Your task to perform on an android device: Show me recent news Image 0: 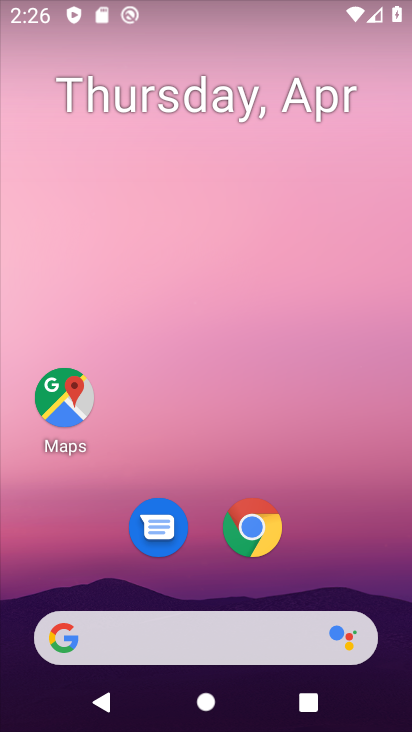
Step 0: drag from (260, 568) to (331, 1)
Your task to perform on an android device: Show me recent news Image 1: 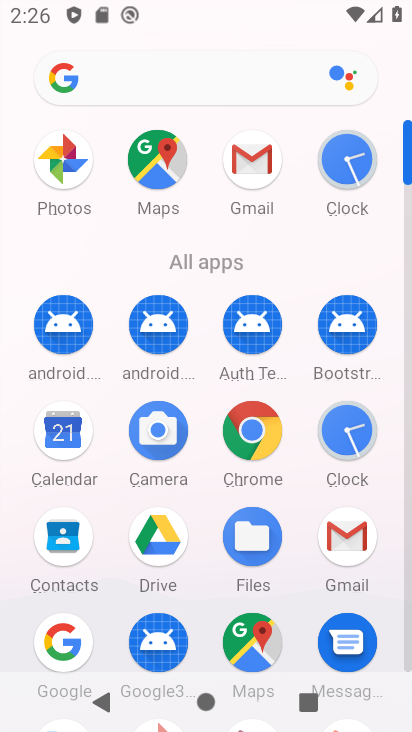
Step 1: click (185, 86)
Your task to perform on an android device: Show me recent news Image 2: 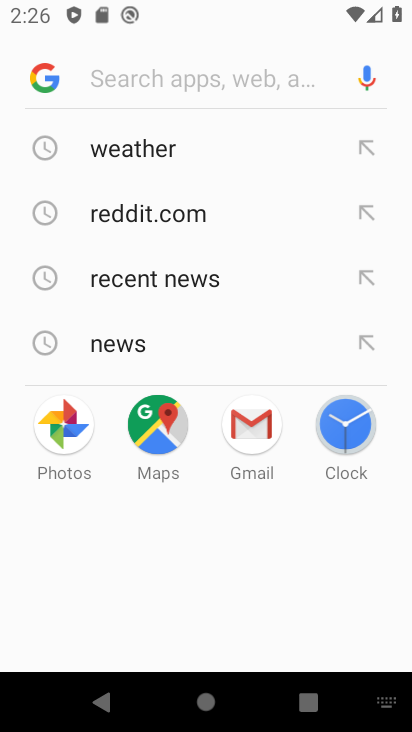
Step 2: click (150, 275)
Your task to perform on an android device: Show me recent news Image 3: 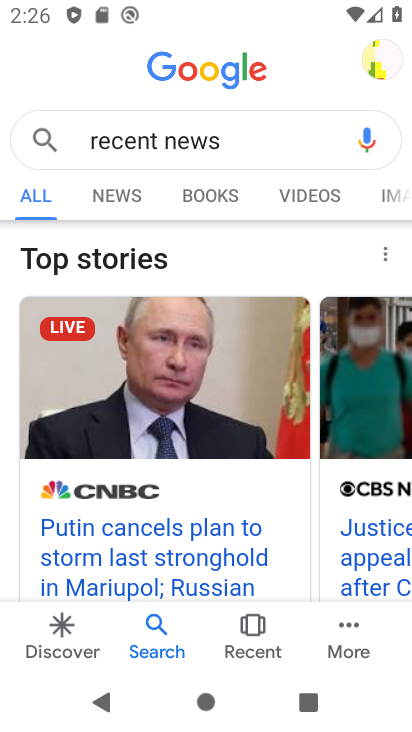
Step 3: task complete